Your task to perform on an android device: turn off location history Image 0: 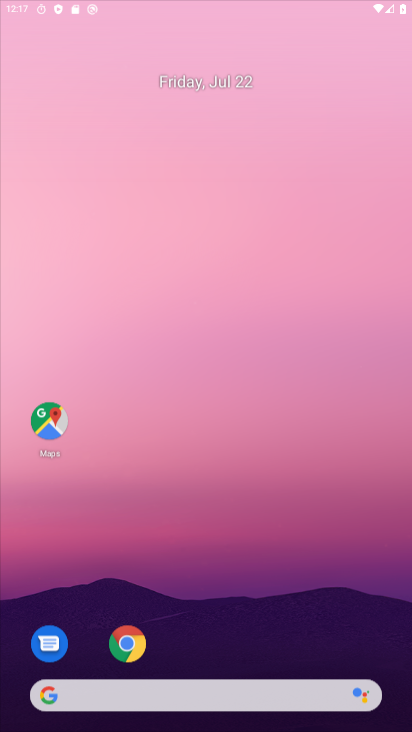
Step 0: press home button
Your task to perform on an android device: turn off location history Image 1: 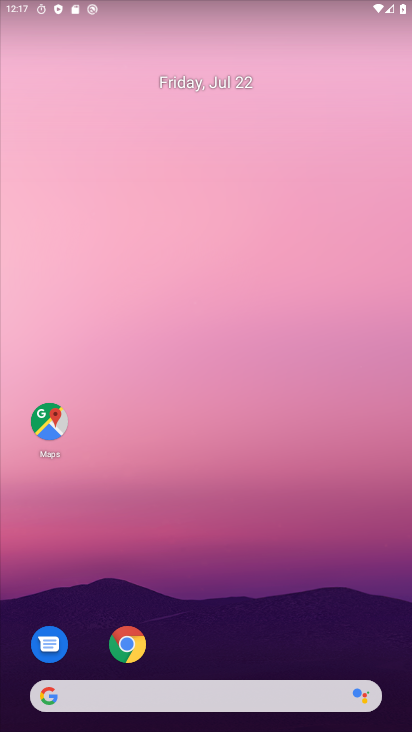
Step 1: drag from (219, 683) to (222, 190)
Your task to perform on an android device: turn off location history Image 2: 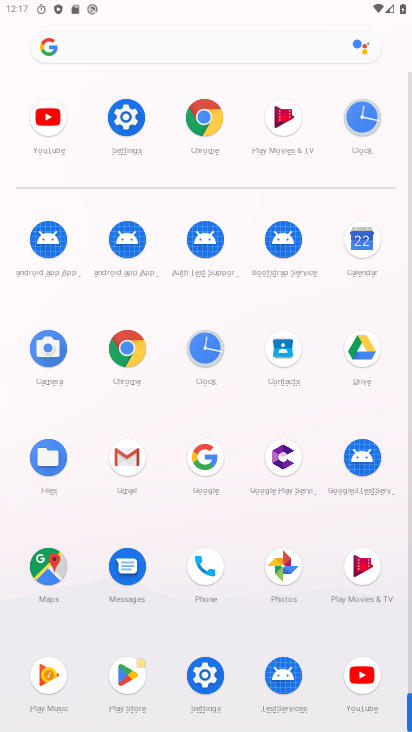
Step 2: drag from (211, 391) to (211, 262)
Your task to perform on an android device: turn off location history Image 3: 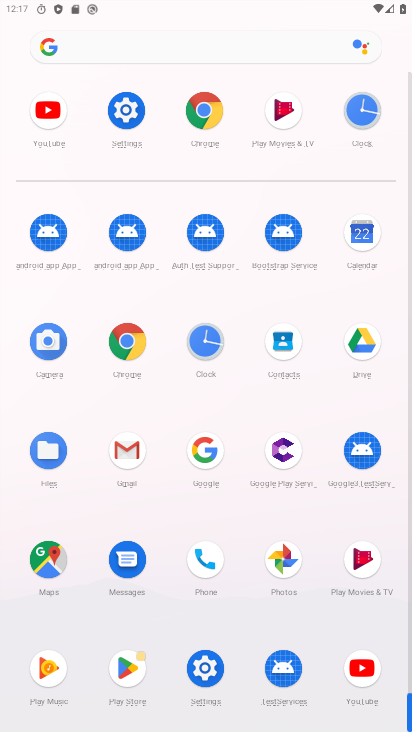
Step 3: click (140, 126)
Your task to perform on an android device: turn off location history Image 4: 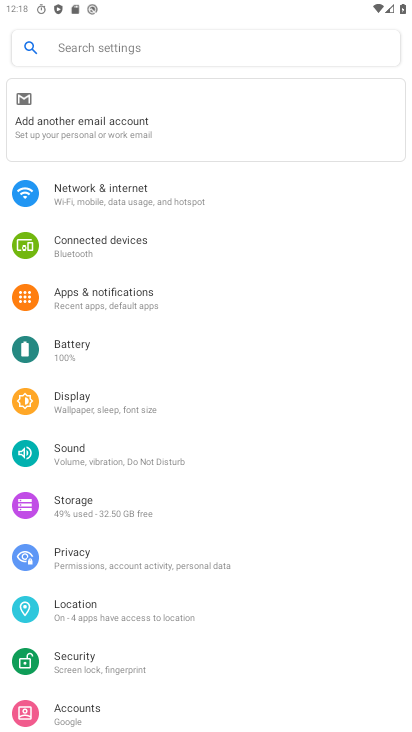
Step 4: click (100, 615)
Your task to perform on an android device: turn off location history Image 5: 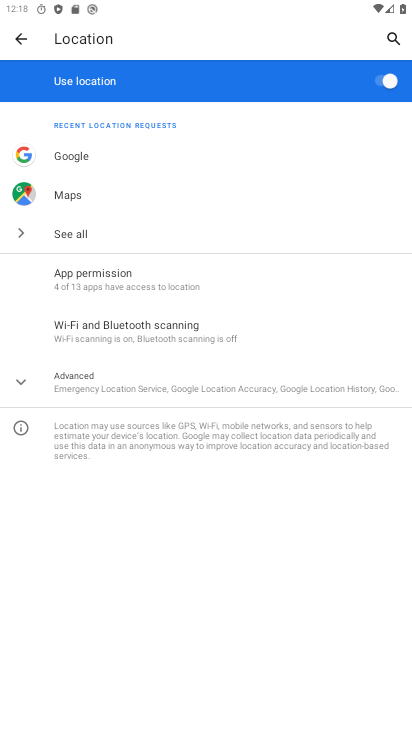
Step 5: click (130, 390)
Your task to perform on an android device: turn off location history Image 6: 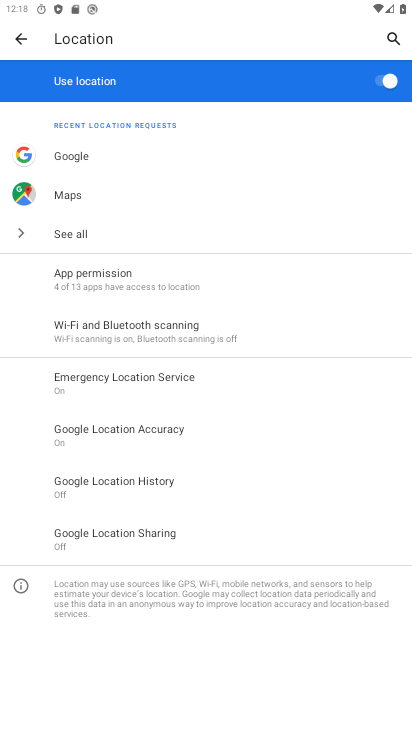
Step 6: click (149, 485)
Your task to perform on an android device: turn off location history Image 7: 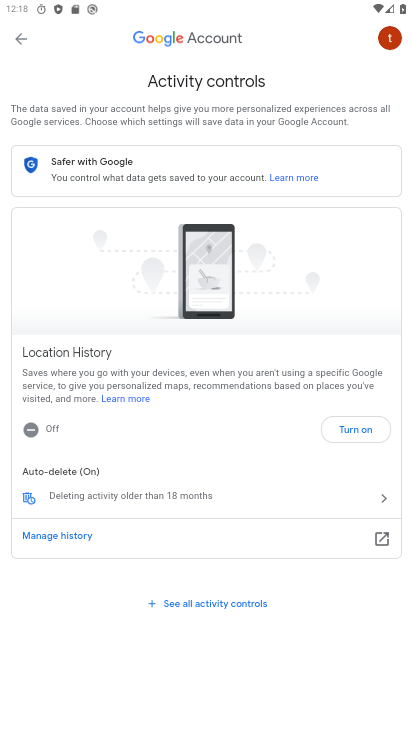
Step 7: task complete